Your task to perform on an android device: Go to Yahoo.com Image 0: 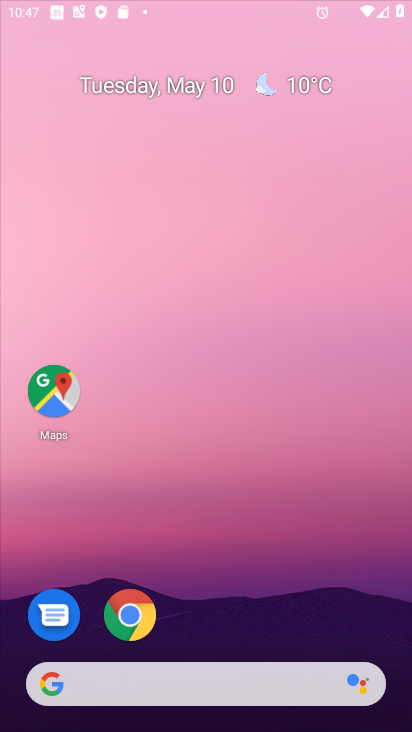
Step 0: press home button
Your task to perform on an android device: Go to Yahoo.com Image 1: 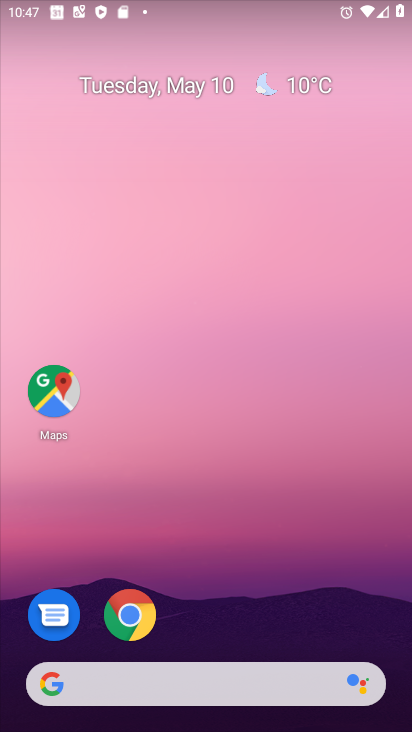
Step 1: press home button
Your task to perform on an android device: Go to Yahoo.com Image 2: 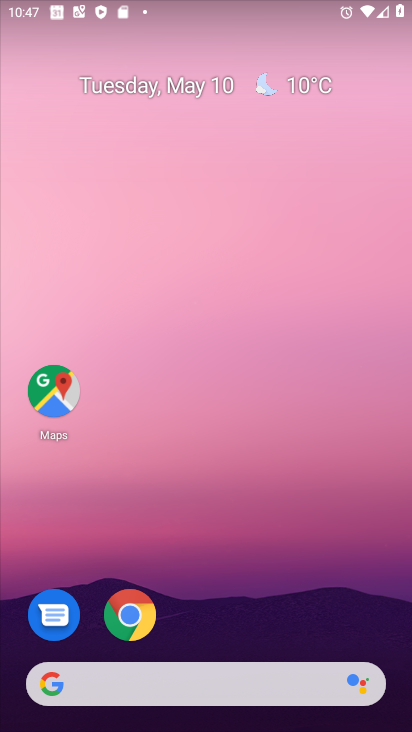
Step 2: click (130, 615)
Your task to perform on an android device: Go to Yahoo.com Image 3: 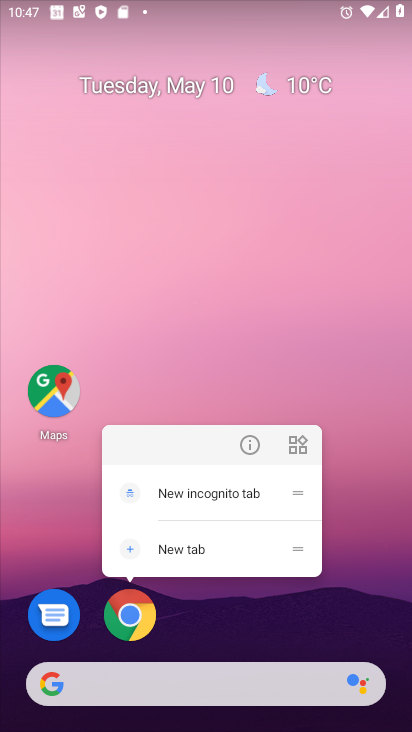
Step 3: click (130, 606)
Your task to perform on an android device: Go to Yahoo.com Image 4: 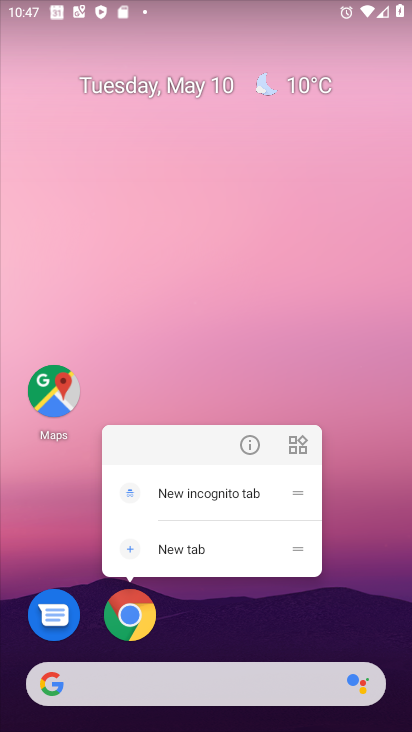
Step 4: click (213, 619)
Your task to perform on an android device: Go to Yahoo.com Image 5: 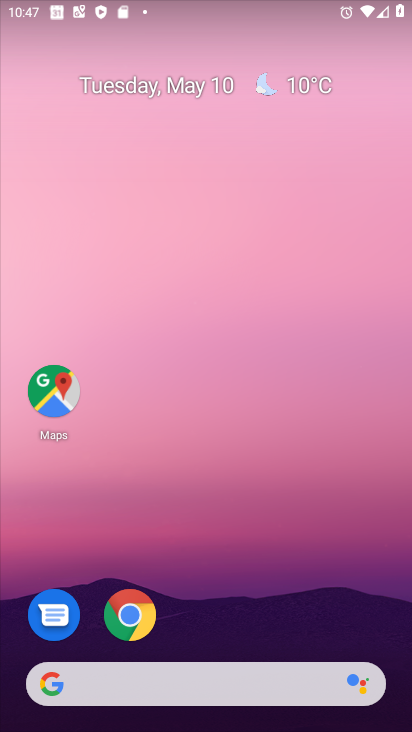
Step 5: click (124, 609)
Your task to perform on an android device: Go to Yahoo.com Image 6: 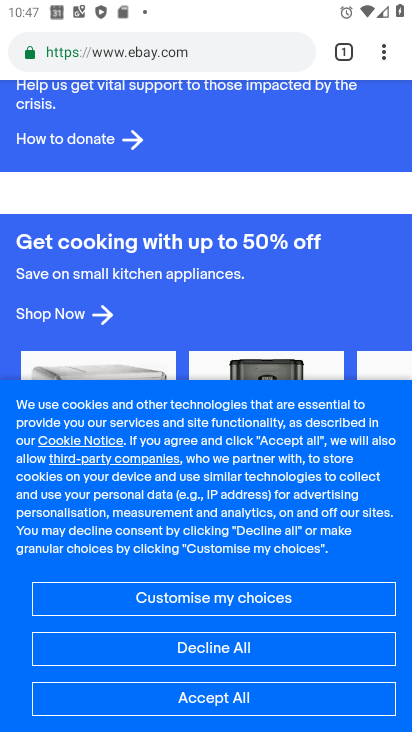
Step 6: click (342, 56)
Your task to perform on an android device: Go to Yahoo.com Image 7: 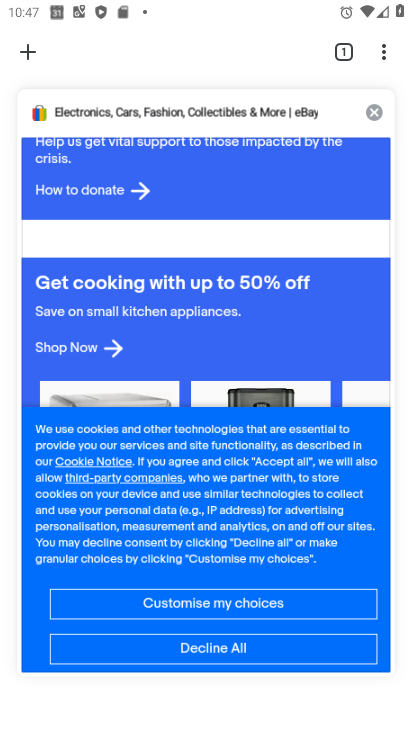
Step 7: click (374, 108)
Your task to perform on an android device: Go to Yahoo.com Image 8: 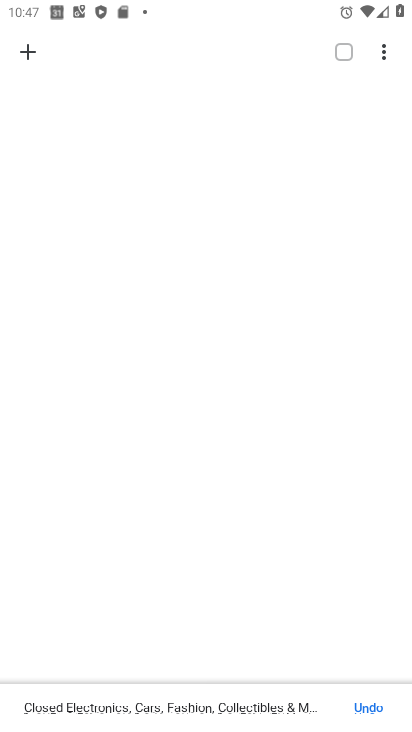
Step 8: click (30, 53)
Your task to perform on an android device: Go to Yahoo.com Image 9: 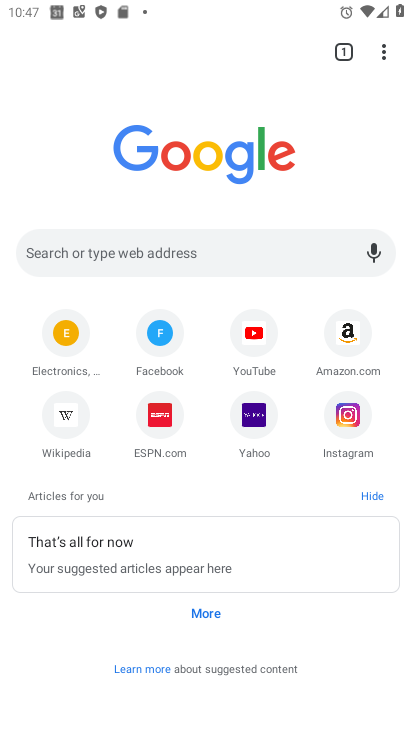
Step 9: click (255, 415)
Your task to perform on an android device: Go to Yahoo.com Image 10: 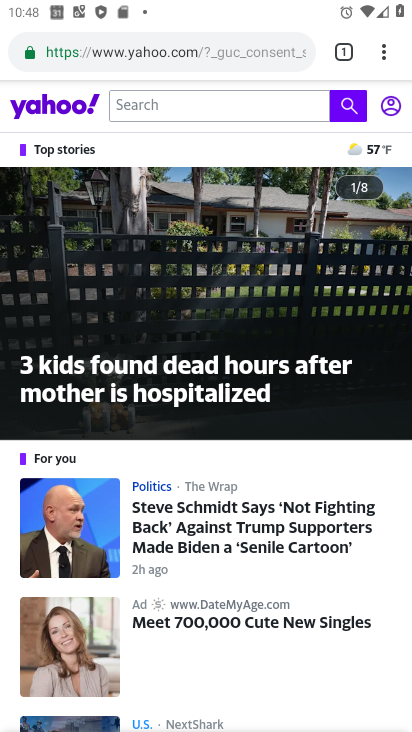
Step 10: task complete